Your task to perform on an android device: Open Google Image 0: 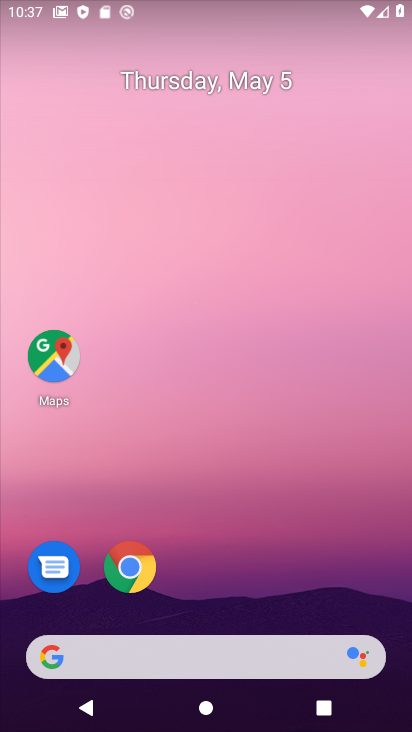
Step 0: click (164, 659)
Your task to perform on an android device: Open Google Image 1: 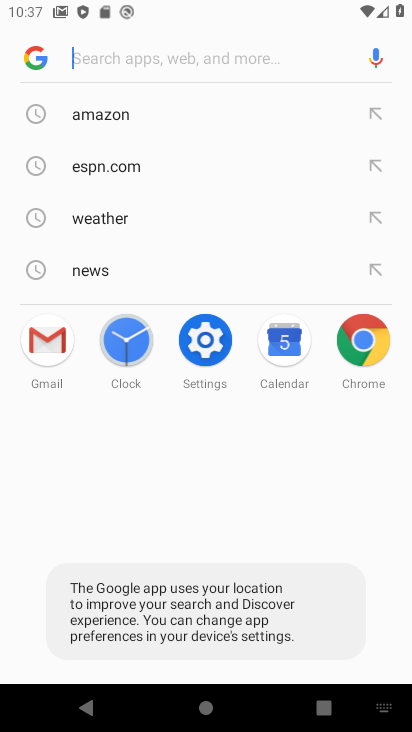
Step 1: task complete